Your task to perform on an android device: check android version Image 0: 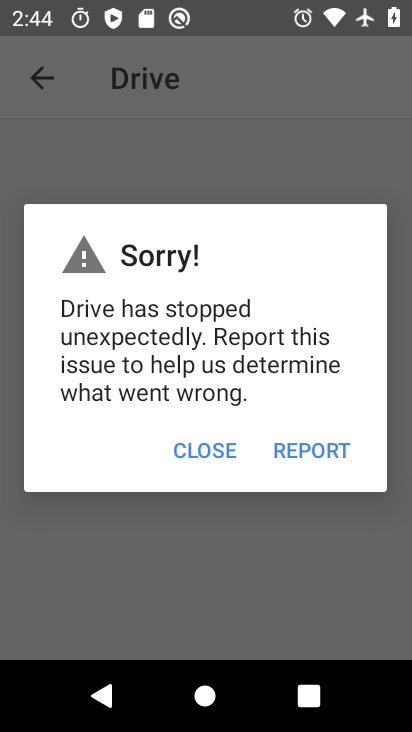
Step 0: press home button
Your task to perform on an android device: check android version Image 1: 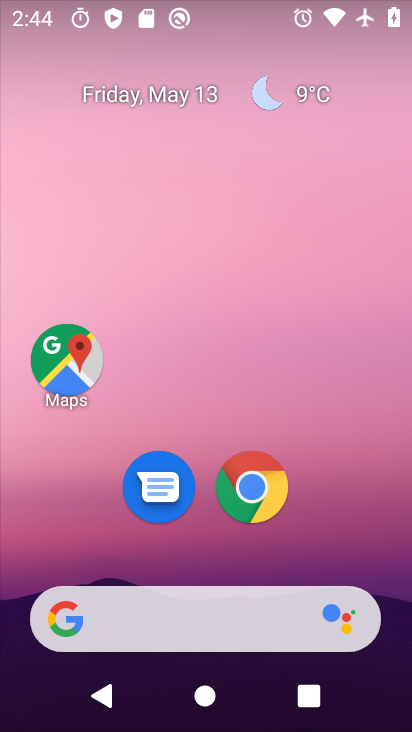
Step 1: drag from (217, 545) to (232, 91)
Your task to perform on an android device: check android version Image 2: 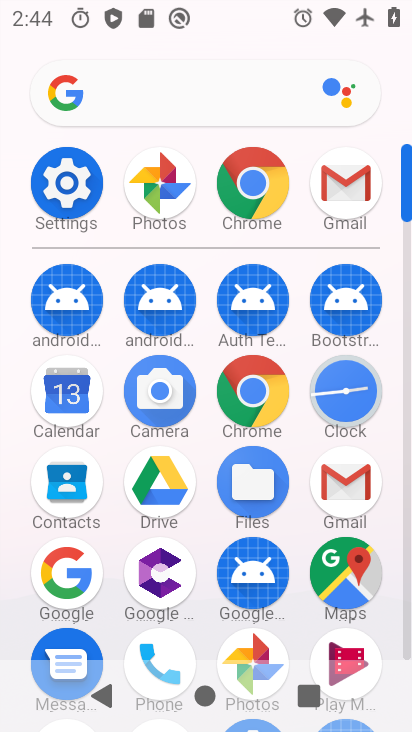
Step 2: click (73, 193)
Your task to perform on an android device: check android version Image 3: 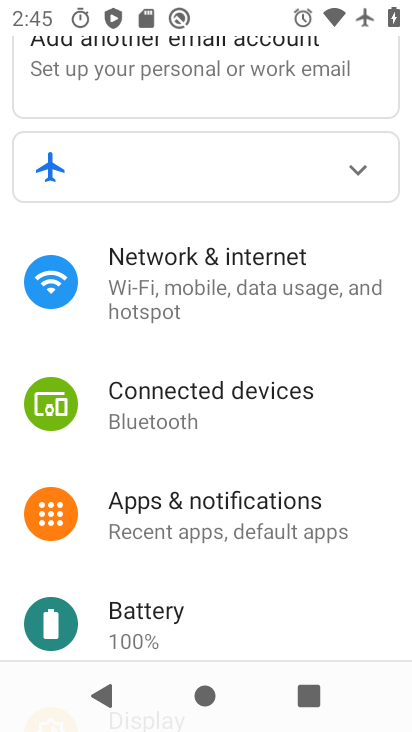
Step 3: drag from (240, 544) to (313, 96)
Your task to perform on an android device: check android version Image 4: 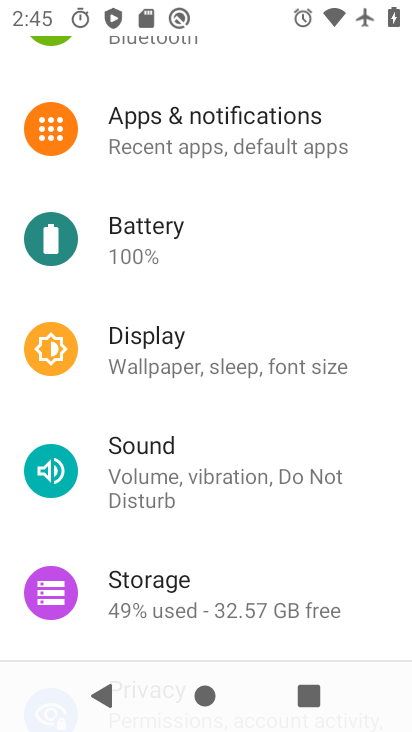
Step 4: drag from (241, 548) to (292, 129)
Your task to perform on an android device: check android version Image 5: 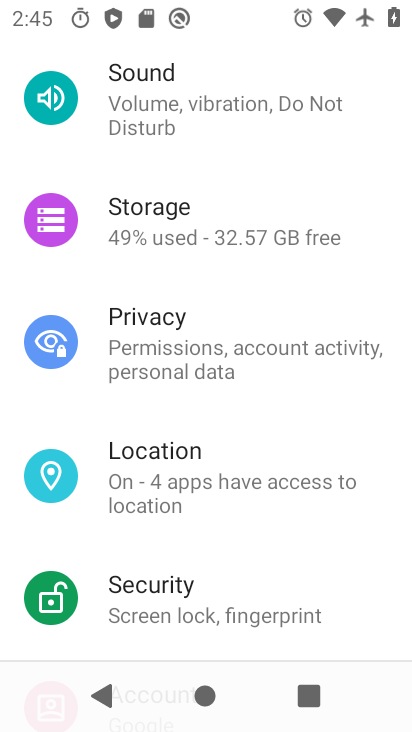
Step 5: drag from (255, 556) to (310, 89)
Your task to perform on an android device: check android version Image 6: 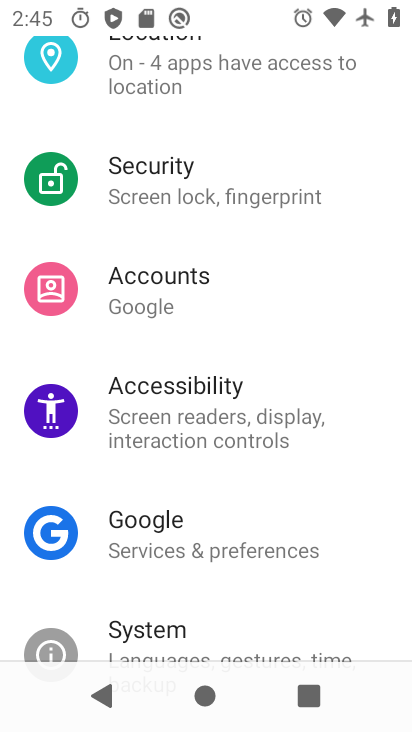
Step 6: drag from (228, 529) to (270, 141)
Your task to perform on an android device: check android version Image 7: 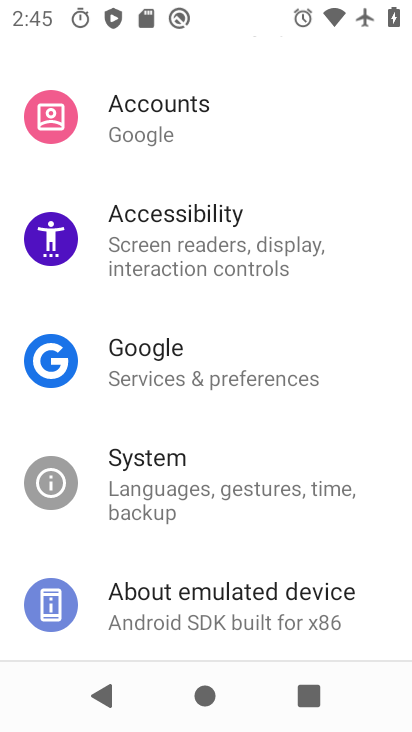
Step 7: drag from (226, 518) to (227, 152)
Your task to perform on an android device: check android version Image 8: 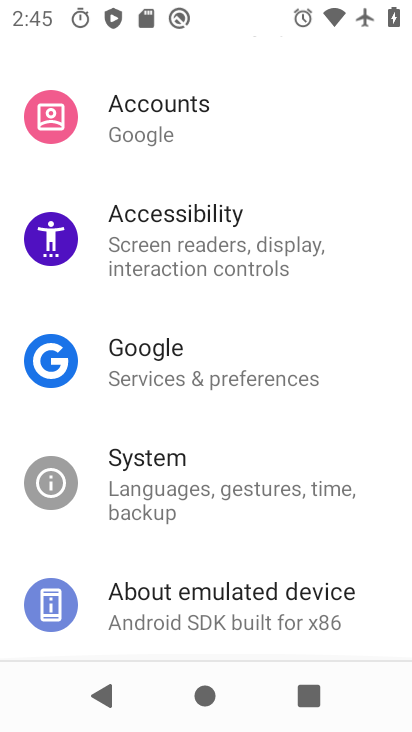
Step 8: click (151, 581)
Your task to perform on an android device: check android version Image 9: 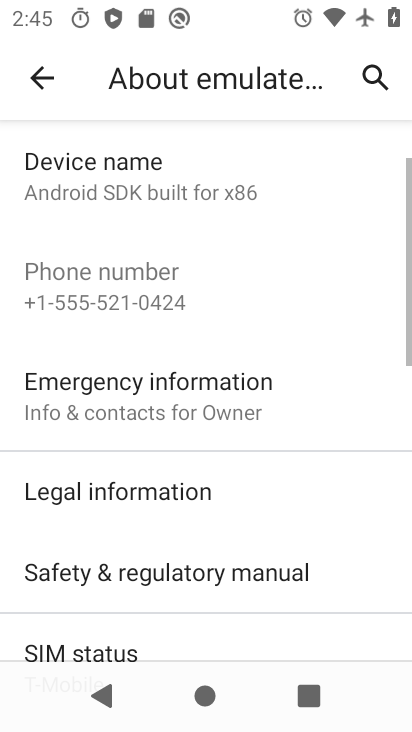
Step 9: drag from (190, 550) to (190, 0)
Your task to perform on an android device: check android version Image 10: 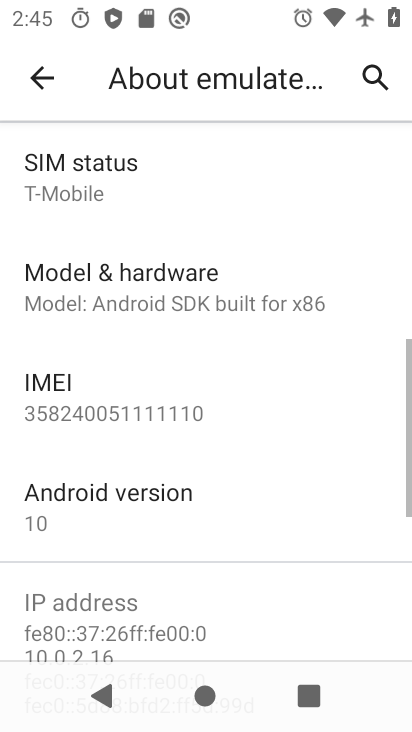
Step 10: drag from (177, 539) to (174, 262)
Your task to perform on an android device: check android version Image 11: 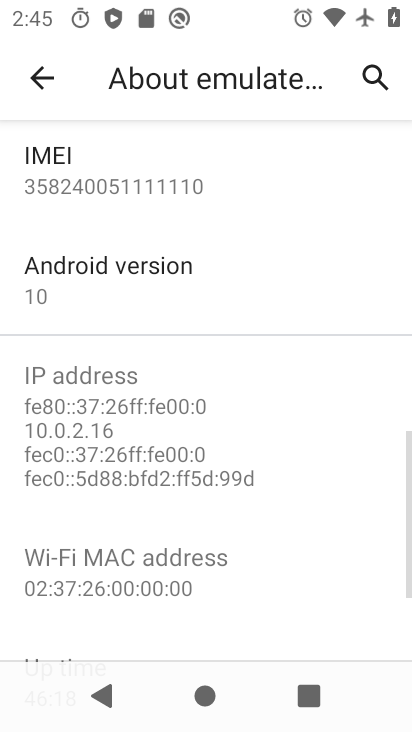
Step 11: drag from (113, 502) to (115, 335)
Your task to perform on an android device: check android version Image 12: 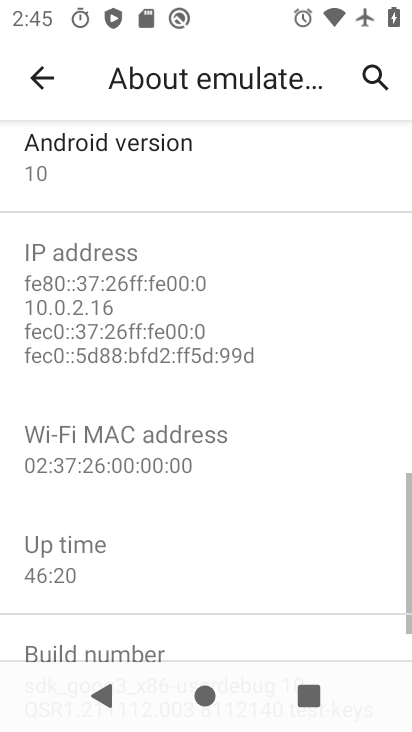
Step 12: click (99, 190)
Your task to perform on an android device: check android version Image 13: 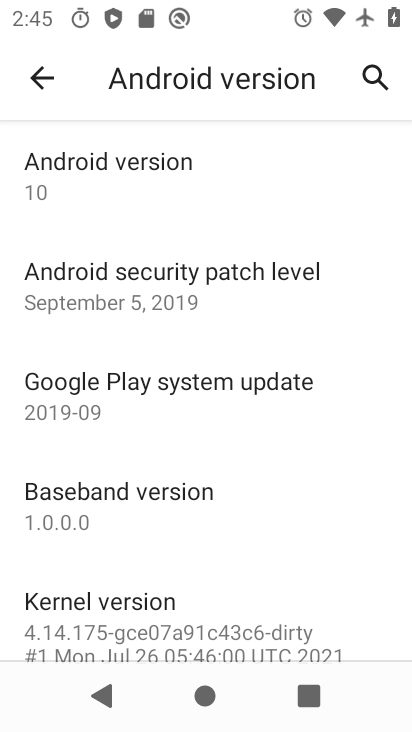
Step 13: task complete